Your task to perform on an android device: change the clock style Image 0: 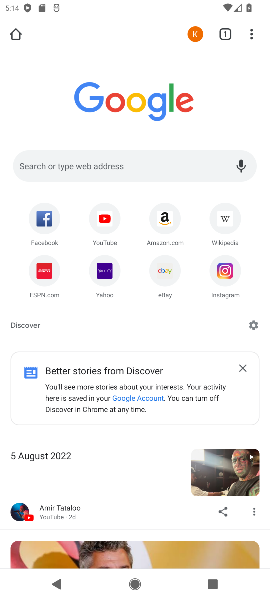
Step 0: press home button
Your task to perform on an android device: change the clock style Image 1: 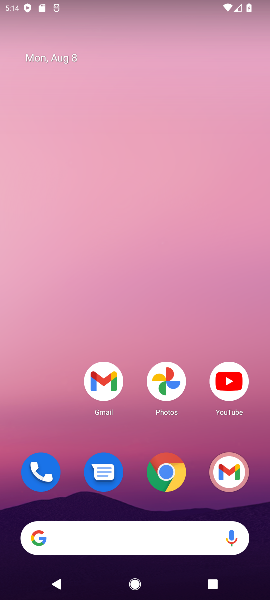
Step 1: drag from (60, 420) to (263, 3)
Your task to perform on an android device: change the clock style Image 2: 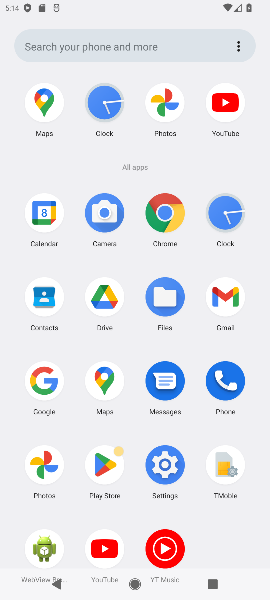
Step 2: click (234, 213)
Your task to perform on an android device: change the clock style Image 3: 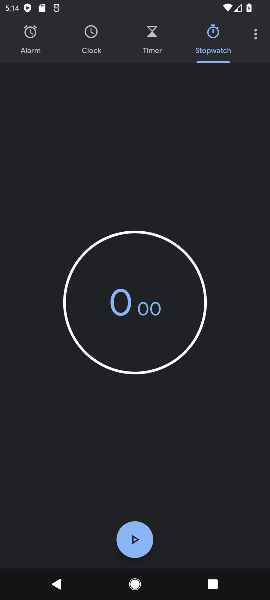
Step 3: click (258, 36)
Your task to perform on an android device: change the clock style Image 4: 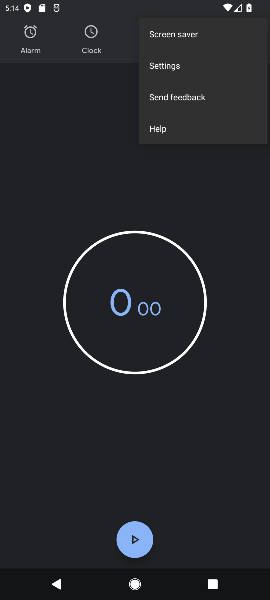
Step 4: click (162, 67)
Your task to perform on an android device: change the clock style Image 5: 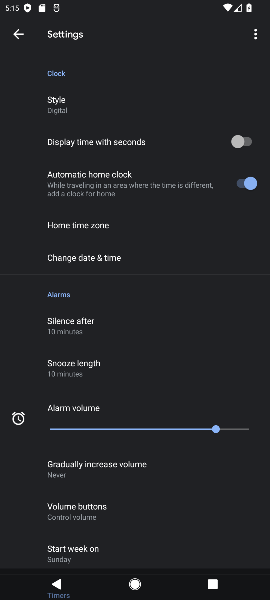
Step 5: click (62, 102)
Your task to perform on an android device: change the clock style Image 6: 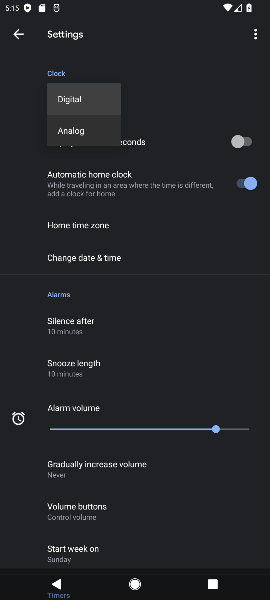
Step 6: click (93, 137)
Your task to perform on an android device: change the clock style Image 7: 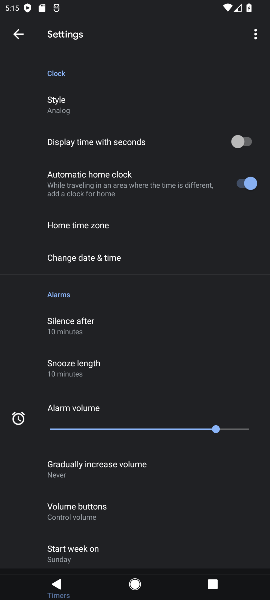
Step 7: task complete